Your task to perform on an android device: Go to eBay Image 0: 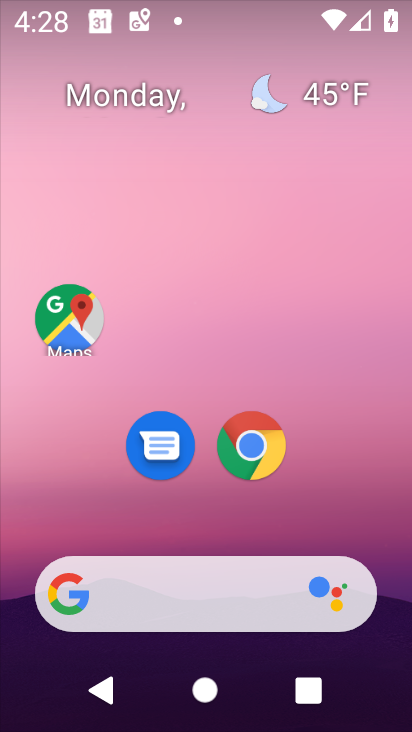
Step 0: click (239, 446)
Your task to perform on an android device: Go to eBay Image 1: 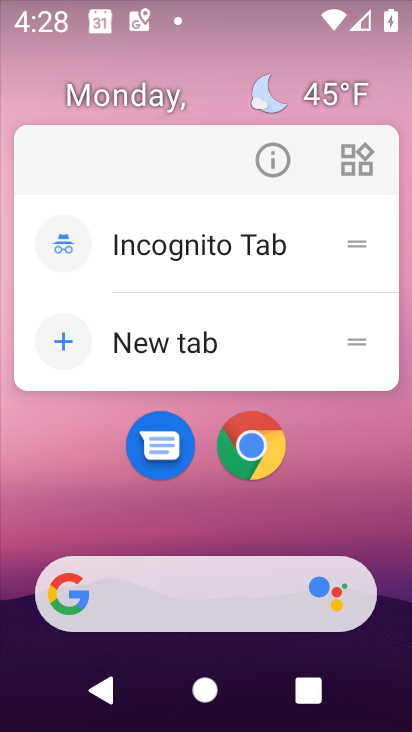
Step 1: click (239, 446)
Your task to perform on an android device: Go to eBay Image 2: 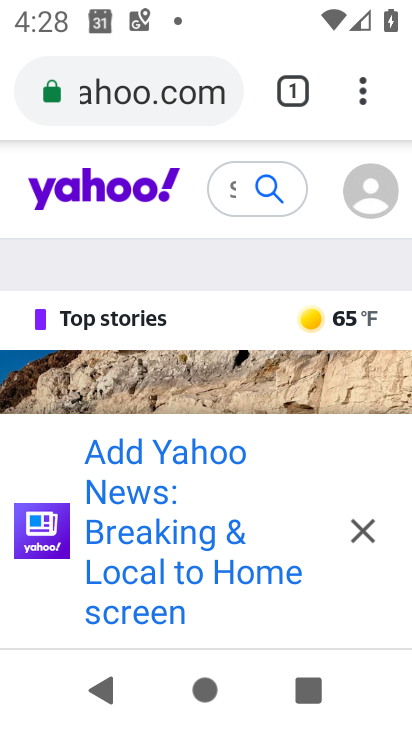
Step 2: click (160, 97)
Your task to perform on an android device: Go to eBay Image 3: 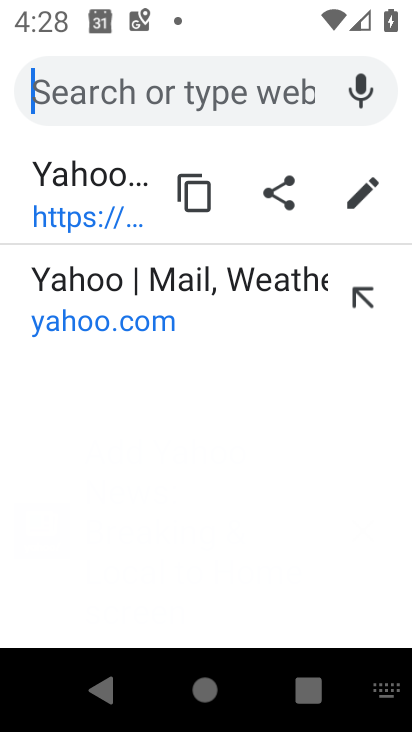
Step 3: type "ebay"
Your task to perform on an android device: Go to eBay Image 4: 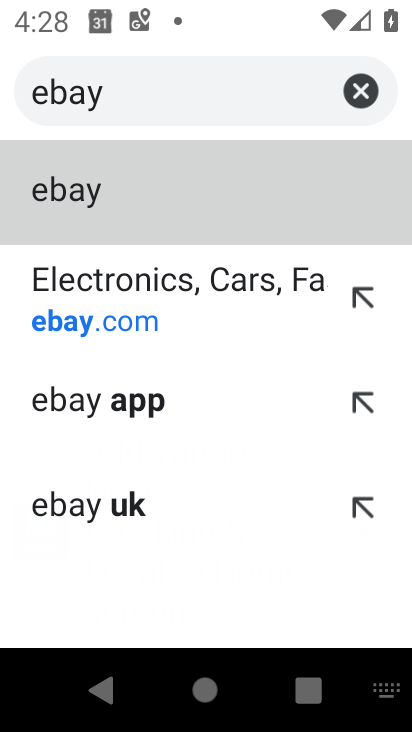
Step 4: click (47, 176)
Your task to perform on an android device: Go to eBay Image 5: 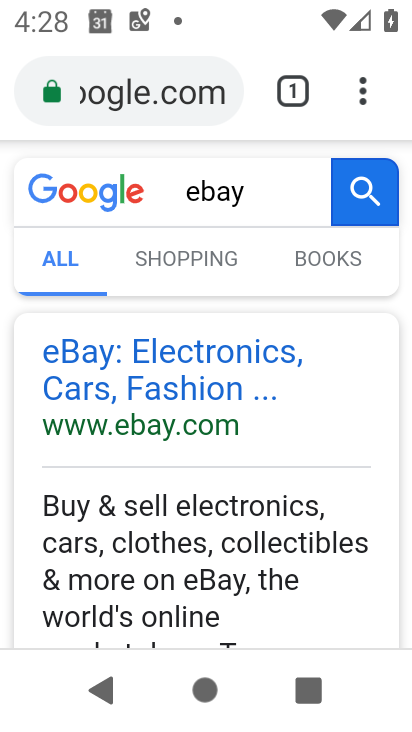
Step 5: click (89, 361)
Your task to perform on an android device: Go to eBay Image 6: 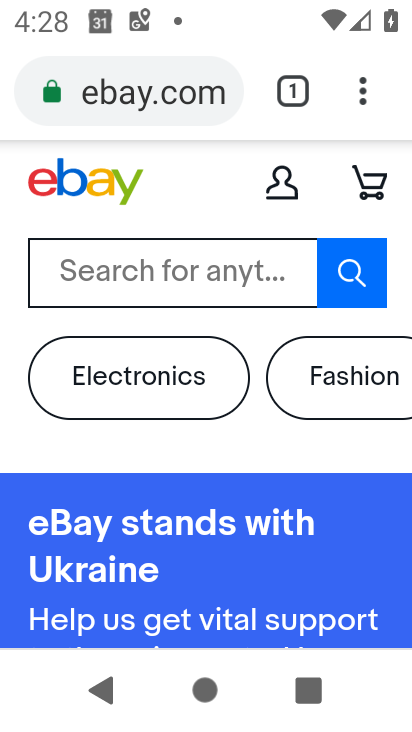
Step 6: task complete